Your task to perform on an android device: Show me recent news Image 0: 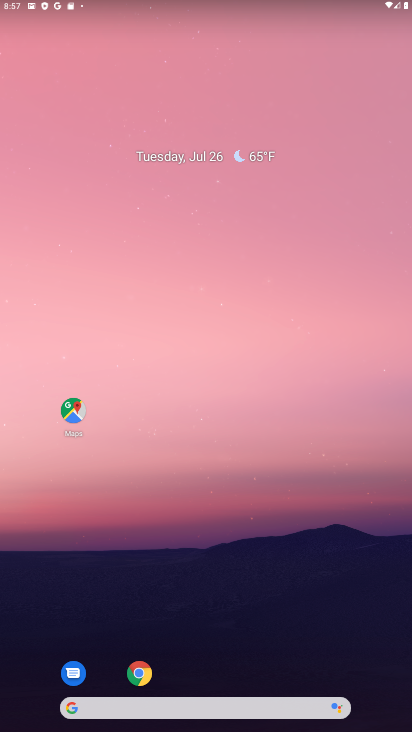
Step 0: drag from (11, 309) to (376, 334)
Your task to perform on an android device: Show me recent news Image 1: 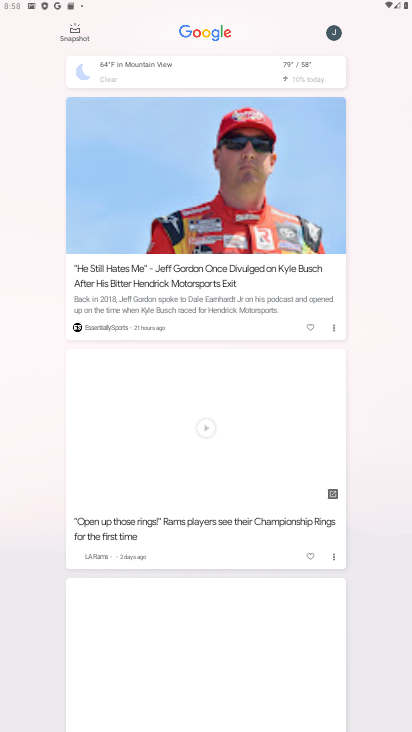
Step 1: task complete